Your task to perform on an android device: Go to internet settings Image 0: 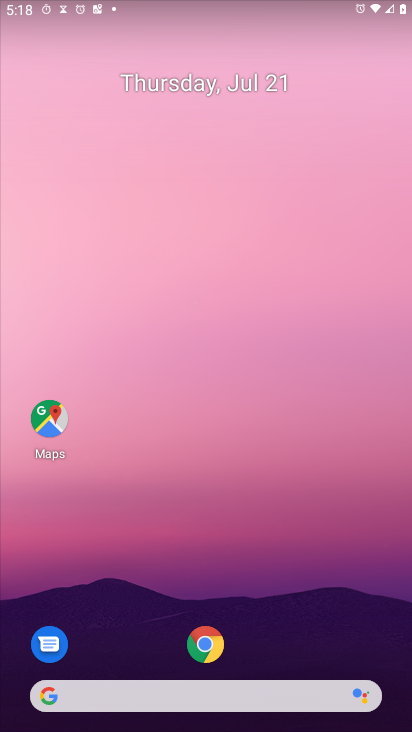
Step 0: press home button
Your task to perform on an android device: Go to internet settings Image 1: 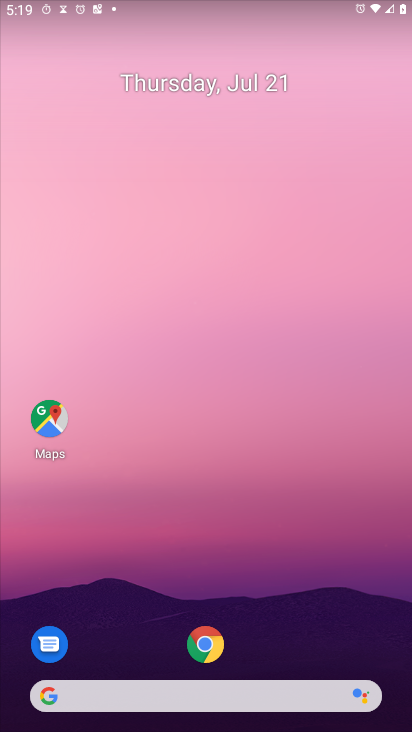
Step 1: drag from (313, 572) to (411, 182)
Your task to perform on an android device: Go to internet settings Image 2: 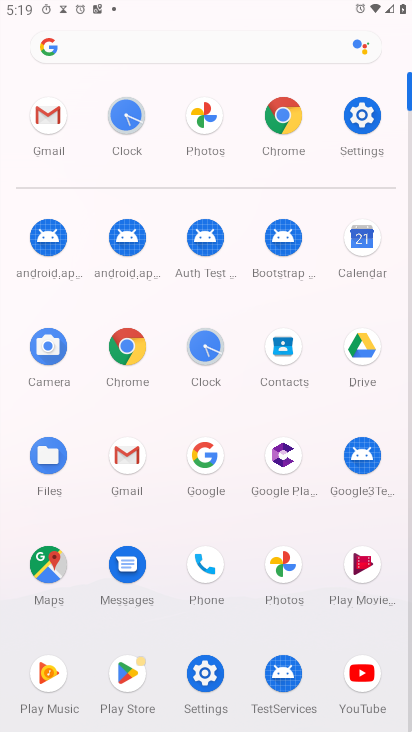
Step 2: click (354, 119)
Your task to perform on an android device: Go to internet settings Image 3: 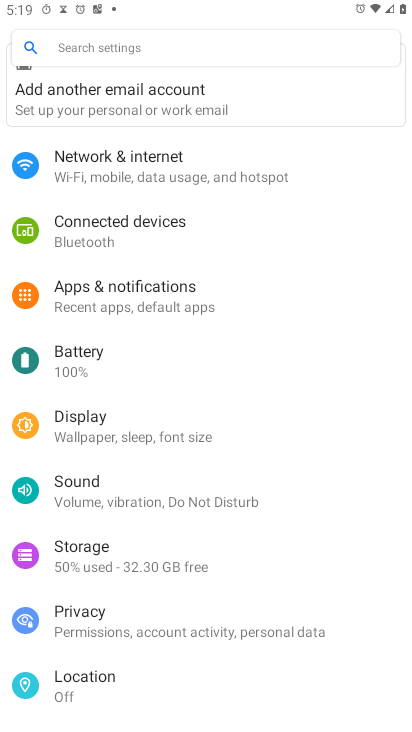
Step 3: click (166, 159)
Your task to perform on an android device: Go to internet settings Image 4: 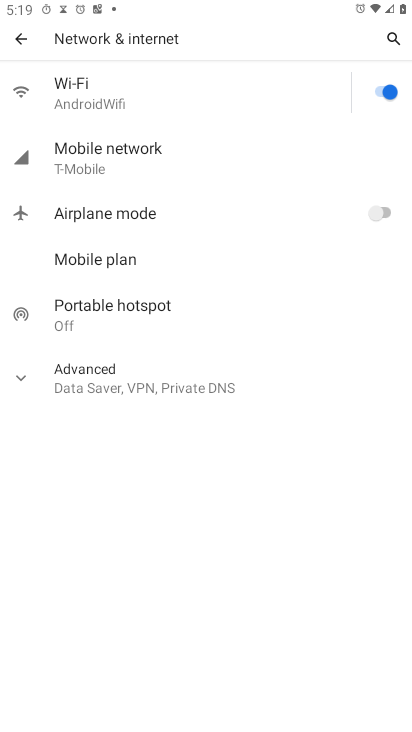
Step 4: task complete